Your task to perform on an android device: turn on notifications settings in the gmail app Image 0: 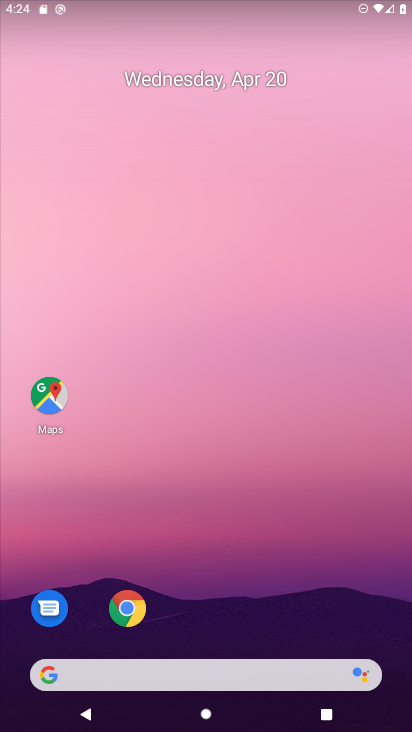
Step 0: drag from (379, 623) to (202, 103)
Your task to perform on an android device: turn on notifications settings in the gmail app Image 1: 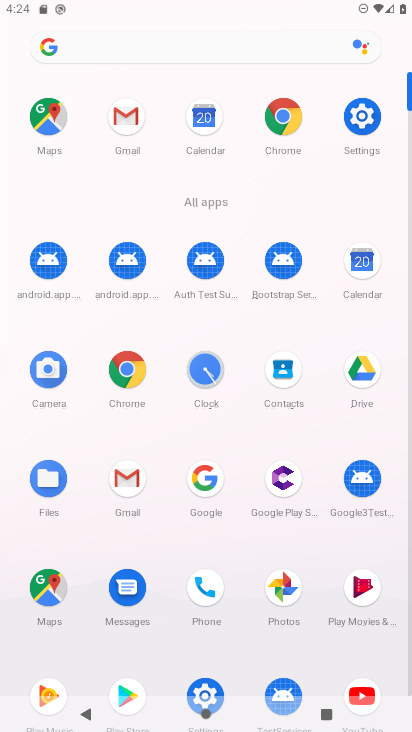
Step 1: click (129, 127)
Your task to perform on an android device: turn on notifications settings in the gmail app Image 2: 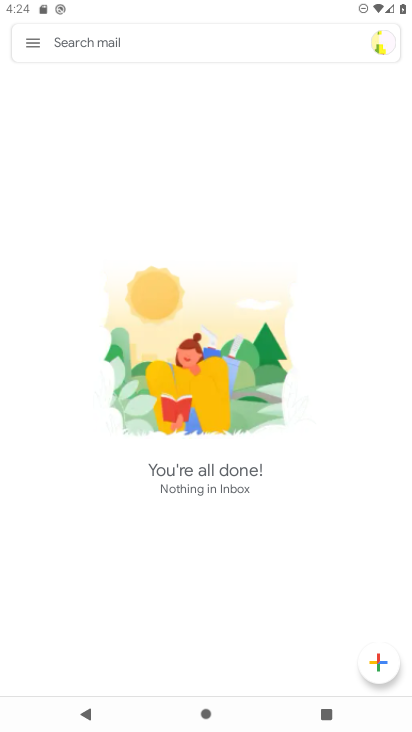
Step 2: click (24, 45)
Your task to perform on an android device: turn on notifications settings in the gmail app Image 3: 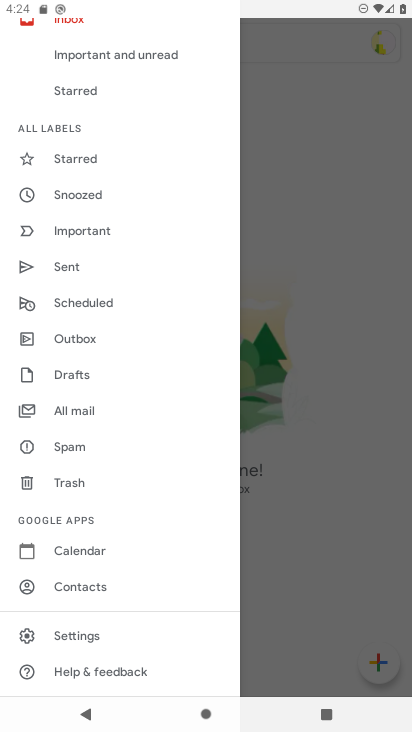
Step 3: click (149, 631)
Your task to perform on an android device: turn on notifications settings in the gmail app Image 4: 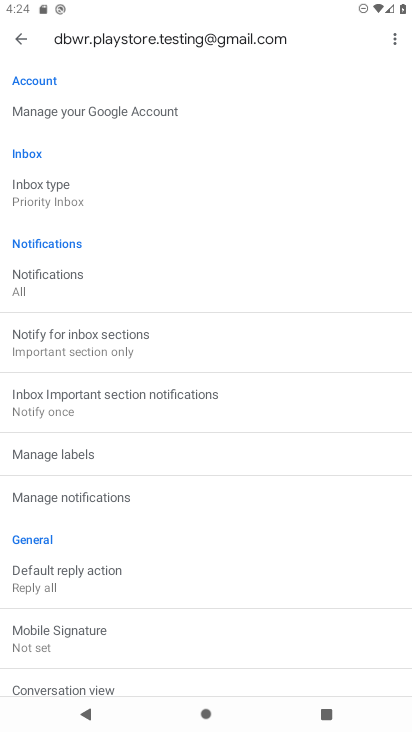
Step 4: click (166, 492)
Your task to perform on an android device: turn on notifications settings in the gmail app Image 5: 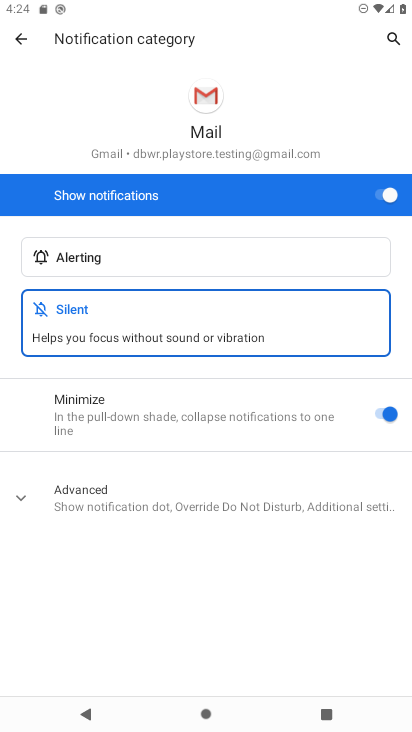
Step 5: task complete